Your task to perform on an android device: turn off picture-in-picture Image 0: 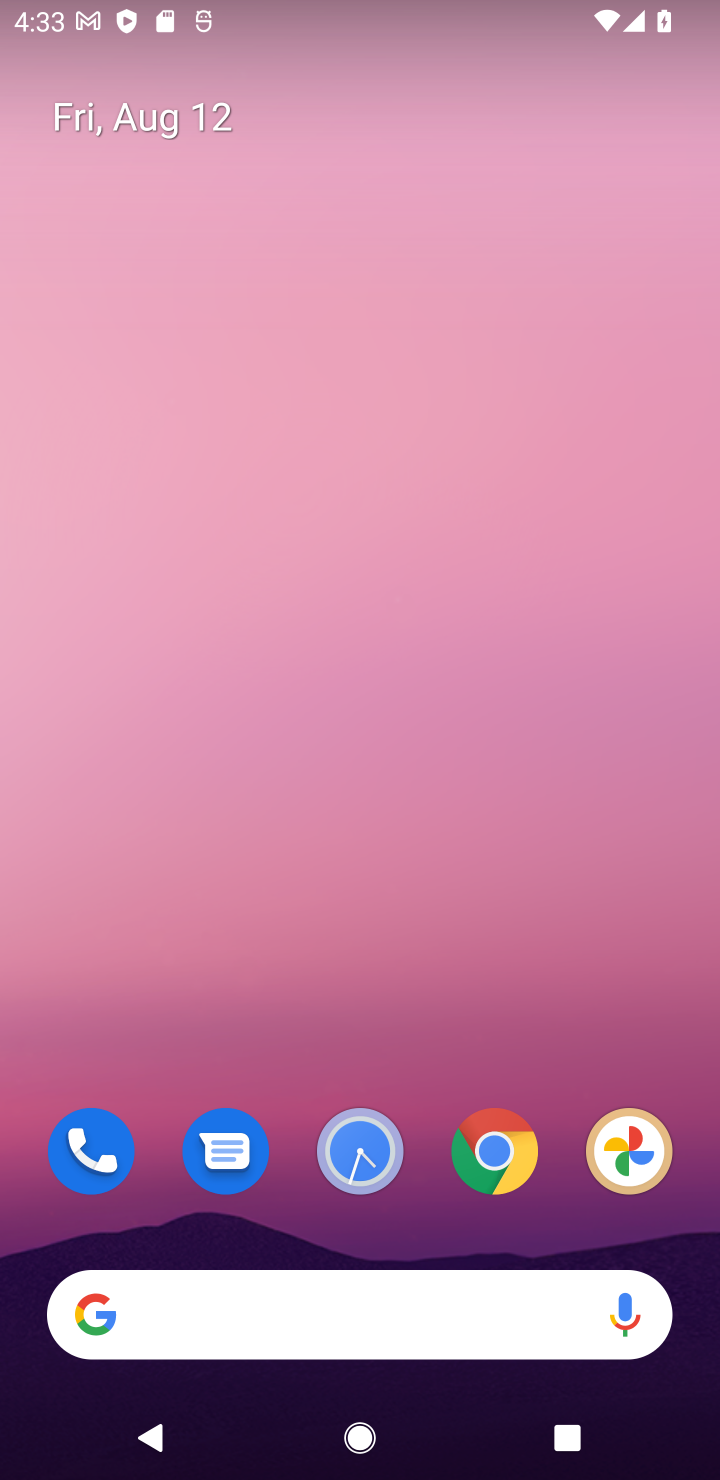
Step 0: click (499, 1158)
Your task to perform on an android device: turn off picture-in-picture Image 1: 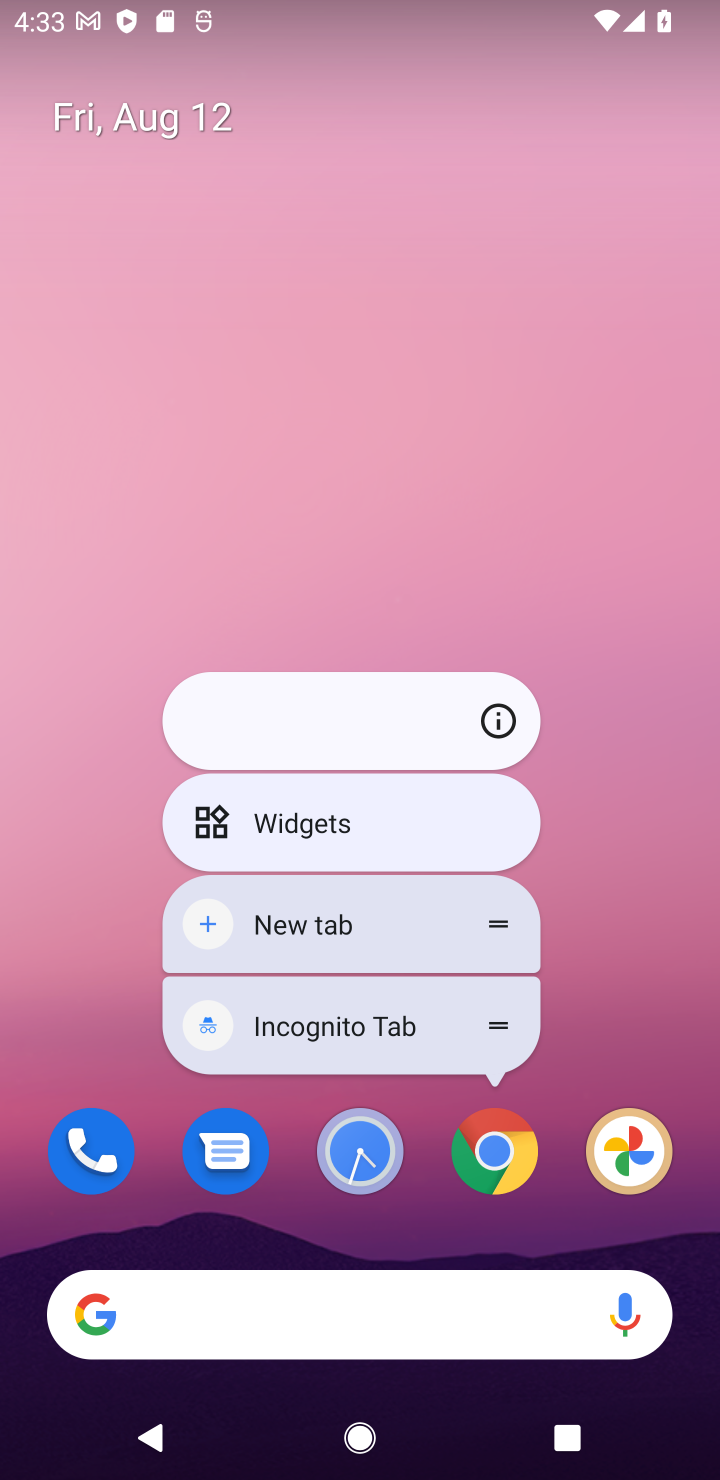
Step 1: click (504, 714)
Your task to perform on an android device: turn off picture-in-picture Image 2: 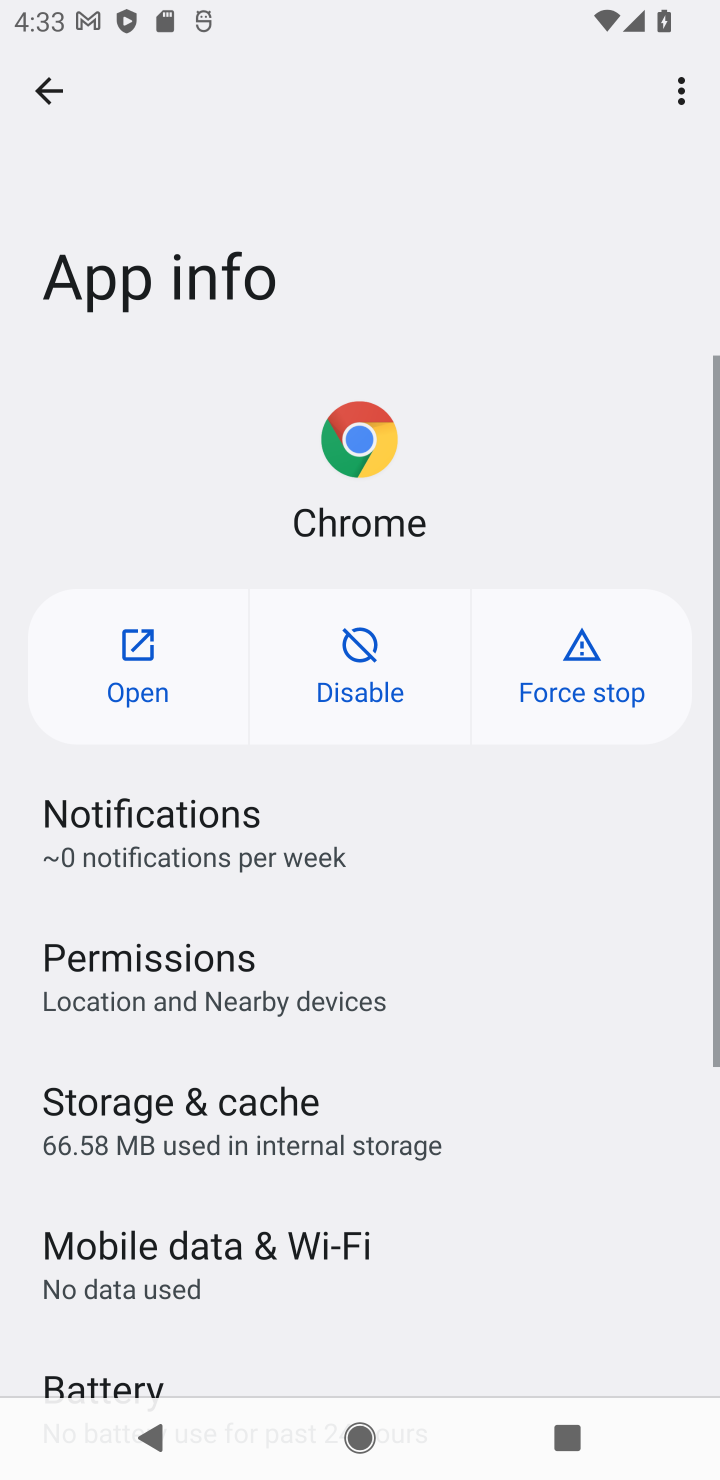
Step 2: drag from (481, 1121) to (626, 0)
Your task to perform on an android device: turn off picture-in-picture Image 3: 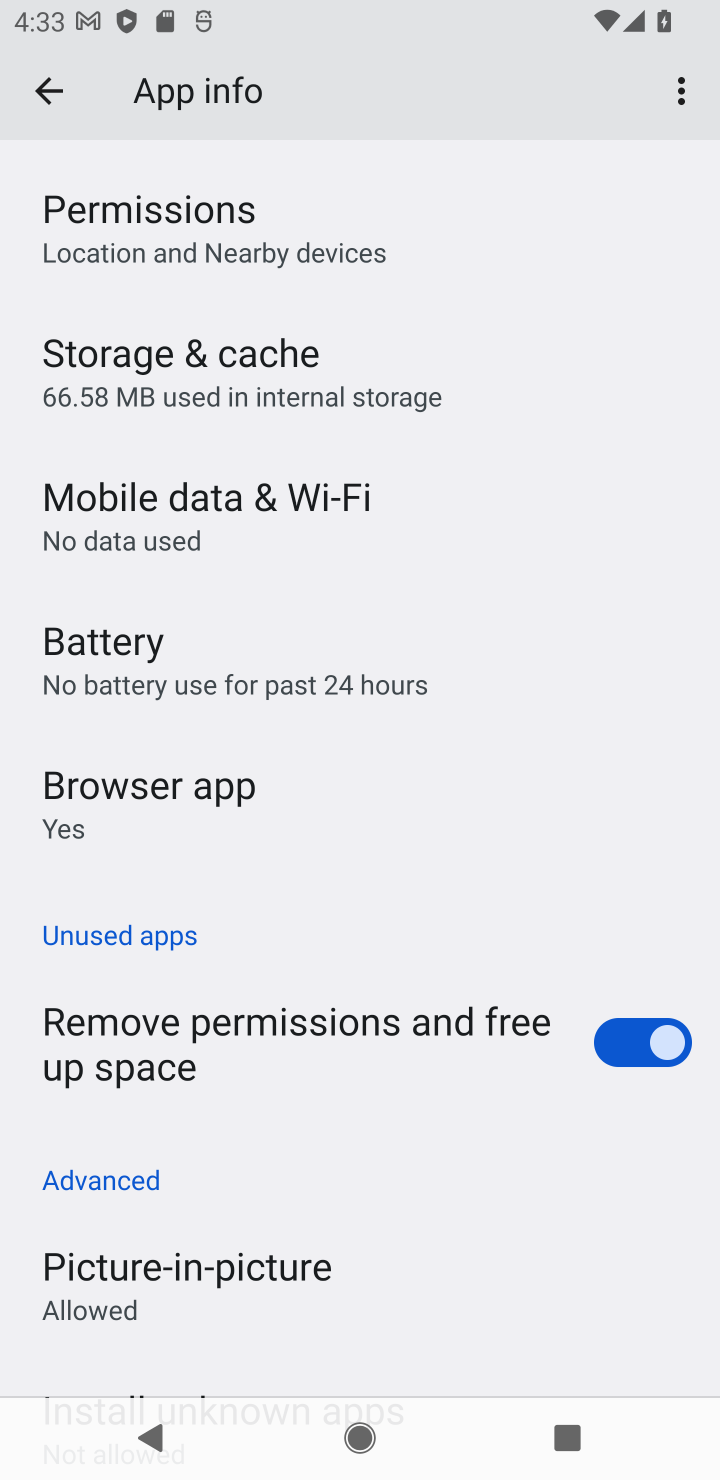
Step 3: click (195, 1301)
Your task to perform on an android device: turn off picture-in-picture Image 4: 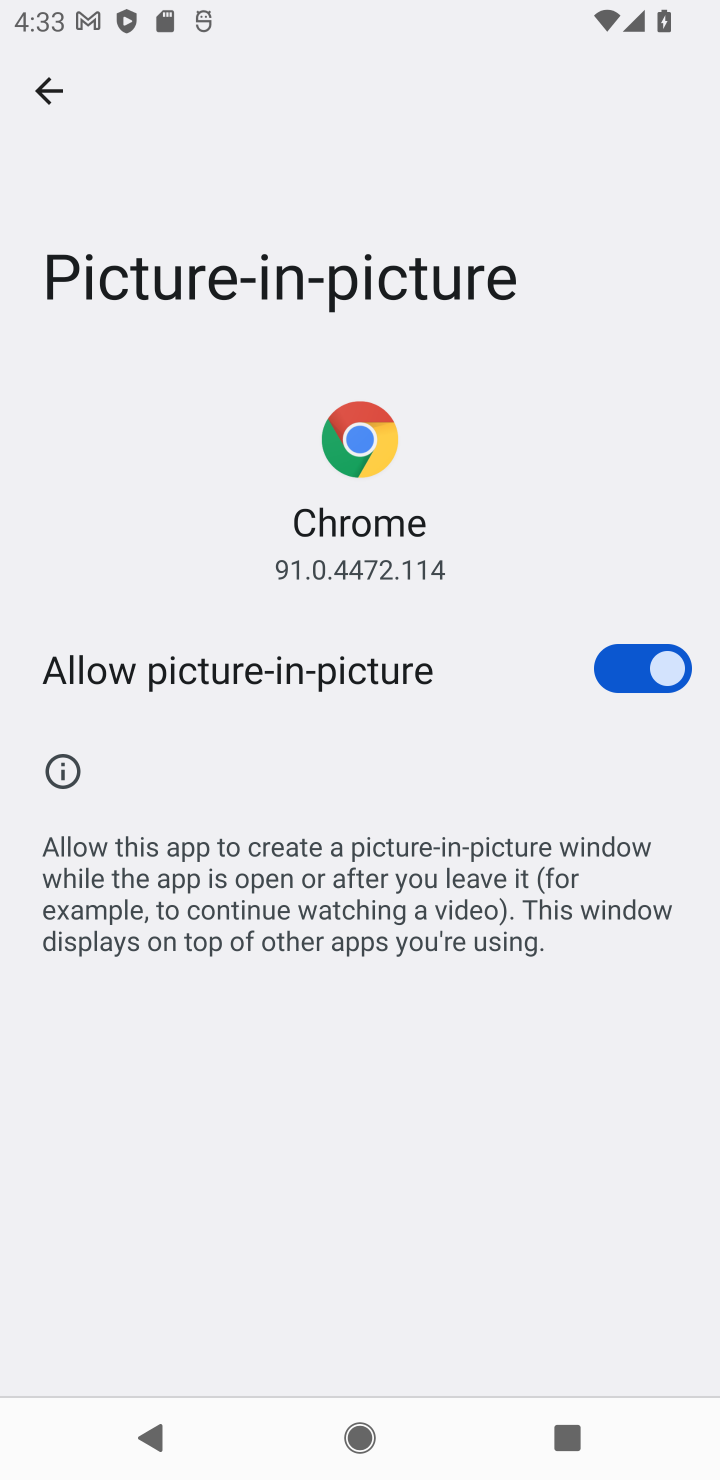
Step 4: click (607, 660)
Your task to perform on an android device: turn off picture-in-picture Image 5: 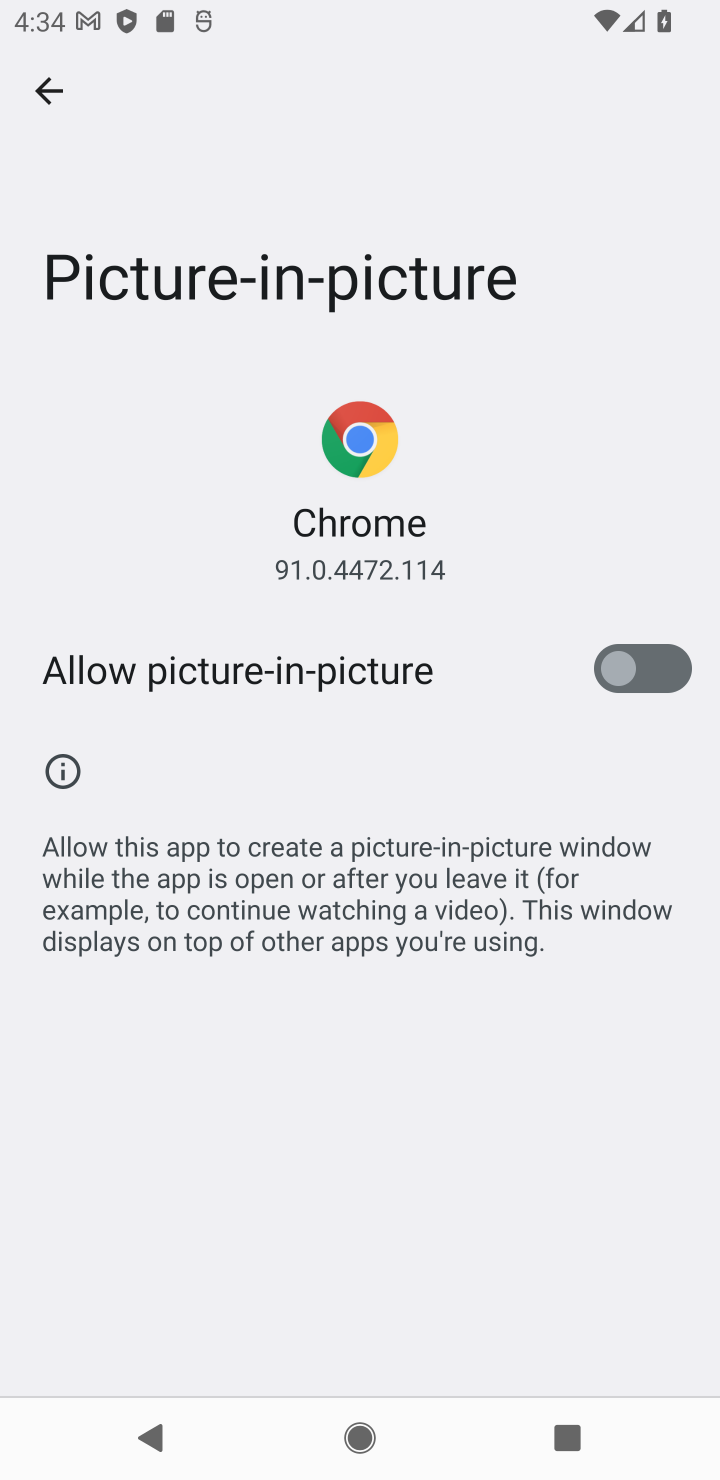
Step 5: task complete